Your task to perform on an android device: open chrome and create a bookmark for the current page Image 0: 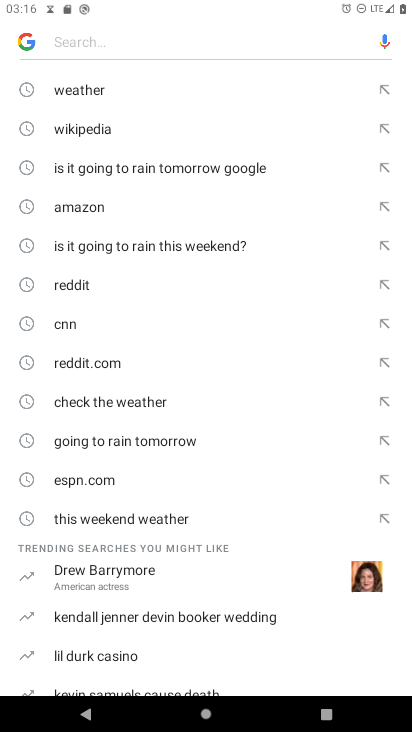
Step 0: press home button
Your task to perform on an android device: open chrome and create a bookmark for the current page Image 1: 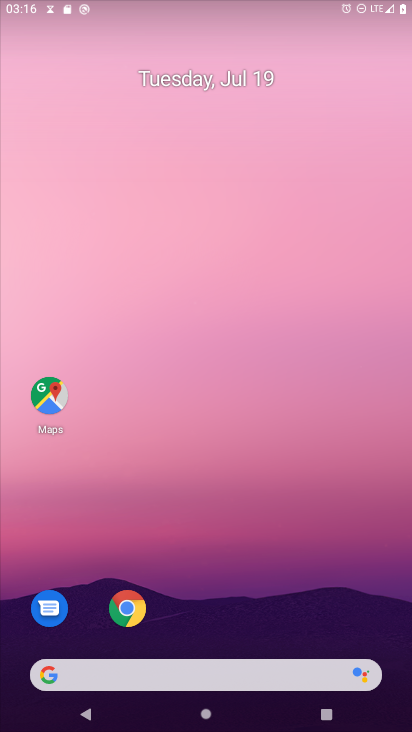
Step 1: drag from (168, 551) to (199, 20)
Your task to perform on an android device: open chrome and create a bookmark for the current page Image 2: 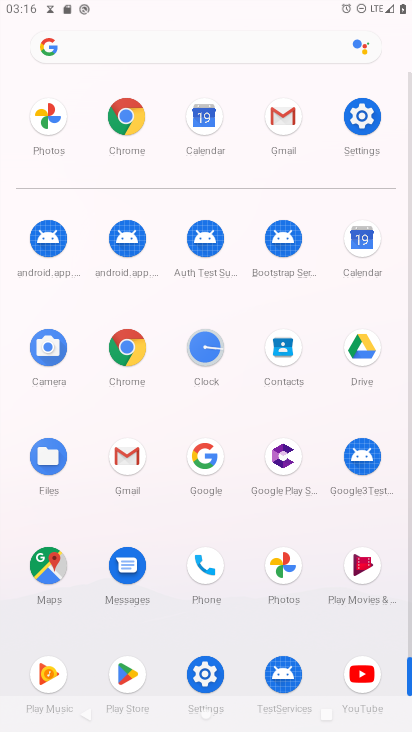
Step 2: click (135, 352)
Your task to perform on an android device: open chrome and create a bookmark for the current page Image 3: 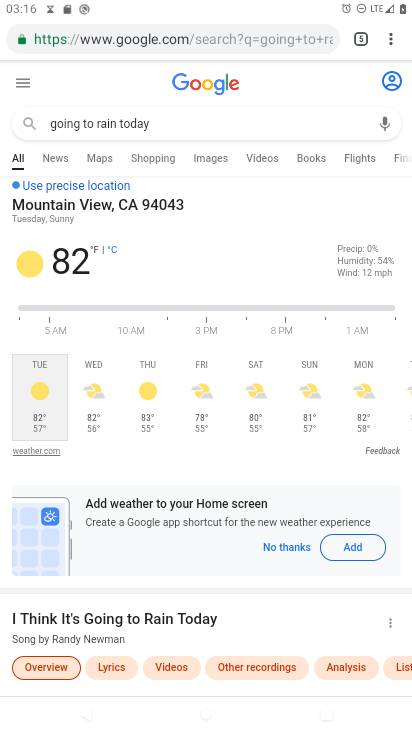
Step 3: drag from (391, 37) to (259, 48)
Your task to perform on an android device: open chrome and create a bookmark for the current page Image 4: 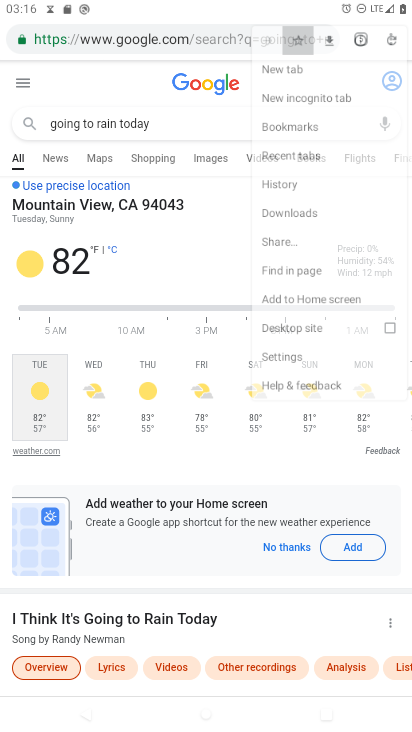
Step 4: click (263, 40)
Your task to perform on an android device: open chrome and create a bookmark for the current page Image 5: 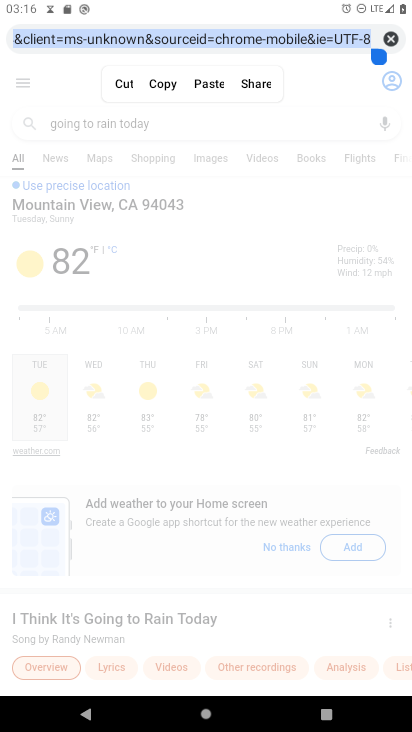
Step 5: click (312, 129)
Your task to perform on an android device: open chrome and create a bookmark for the current page Image 6: 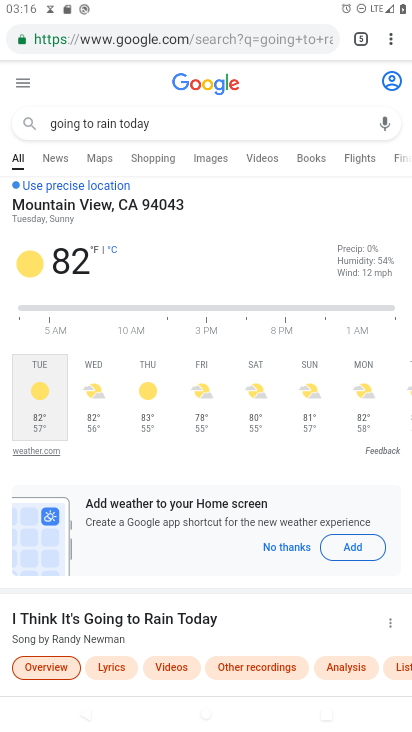
Step 6: click (390, 37)
Your task to perform on an android device: open chrome and create a bookmark for the current page Image 7: 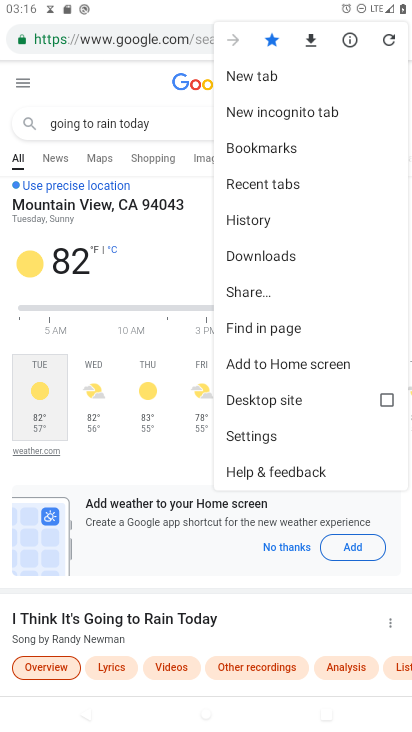
Step 7: task complete